Your task to perform on an android device: clear all cookies in the chrome app Image 0: 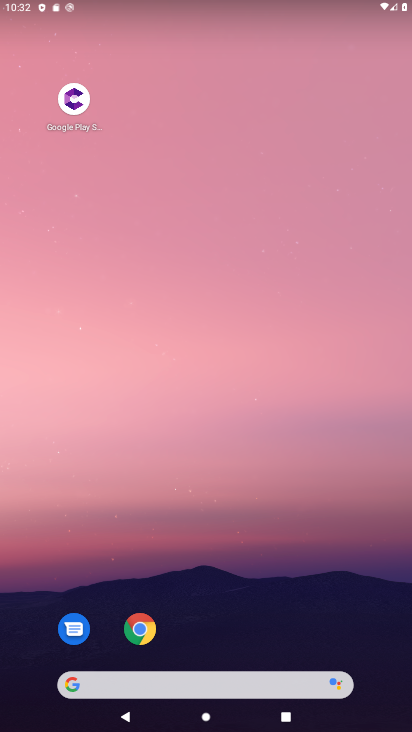
Step 0: click (131, 633)
Your task to perform on an android device: clear all cookies in the chrome app Image 1: 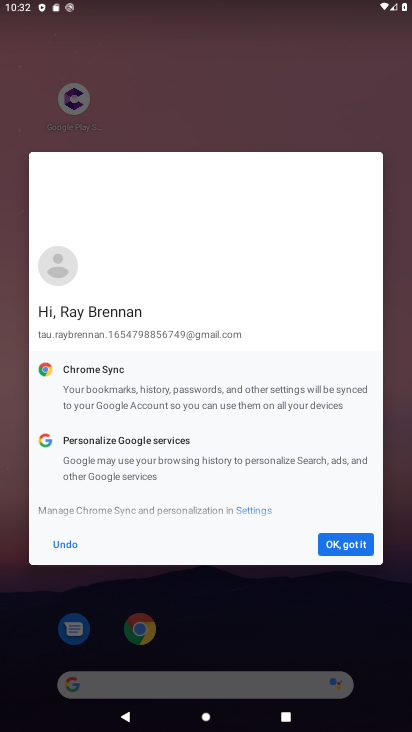
Step 1: click (349, 537)
Your task to perform on an android device: clear all cookies in the chrome app Image 2: 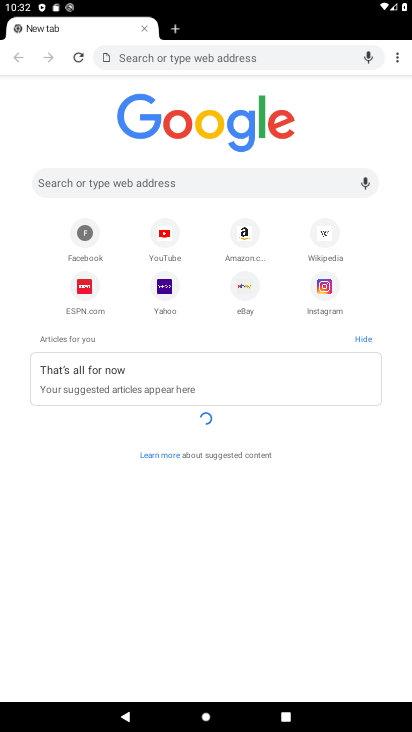
Step 2: click (402, 57)
Your task to perform on an android device: clear all cookies in the chrome app Image 3: 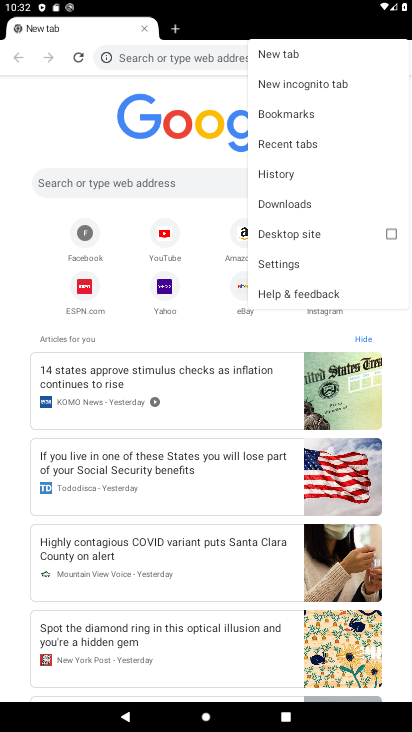
Step 3: click (289, 263)
Your task to perform on an android device: clear all cookies in the chrome app Image 4: 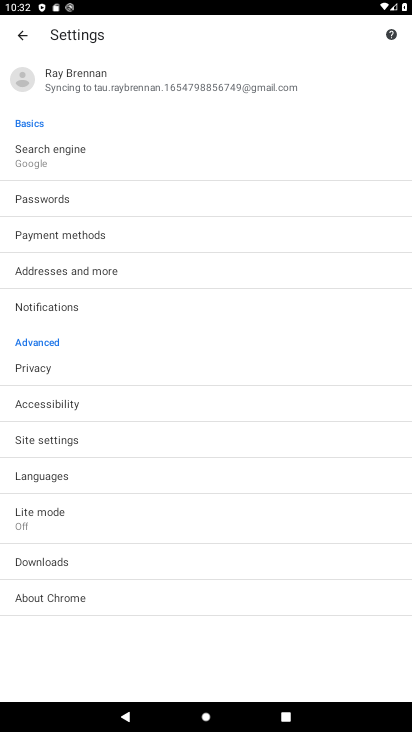
Step 4: click (39, 367)
Your task to perform on an android device: clear all cookies in the chrome app Image 5: 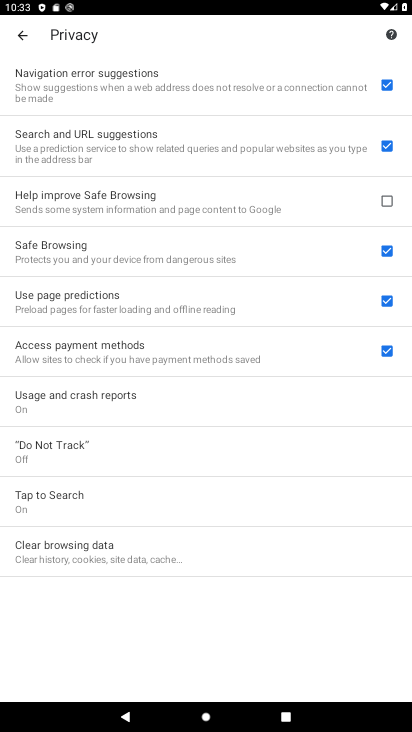
Step 5: click (57, 549)
Your task to perform on an android device: clear all cookies in the chrome app Image 6: 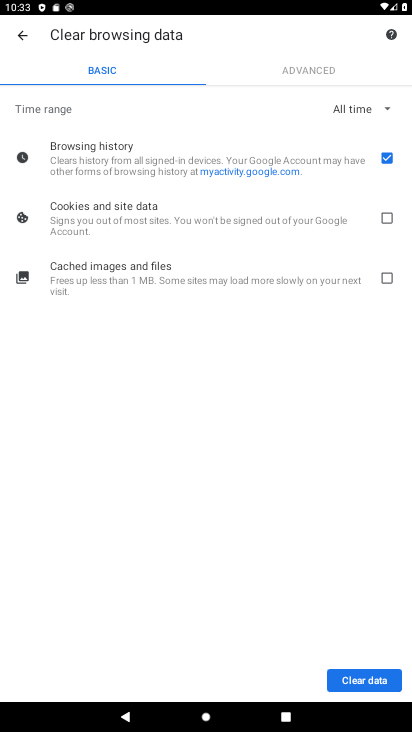
Step 6: click (387, 218)
Your task to perform on an android device: clear all cookies in the chrome app Image 7: 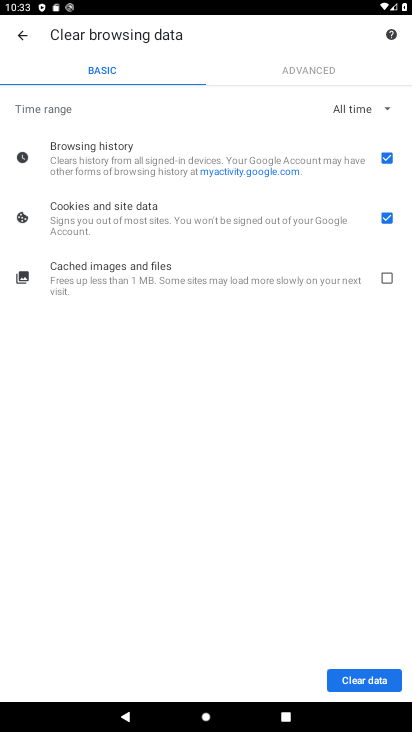
Step 7: click (388, 156)
Your task to perform on an android device: clear all cookies in the chrome app Image 8: 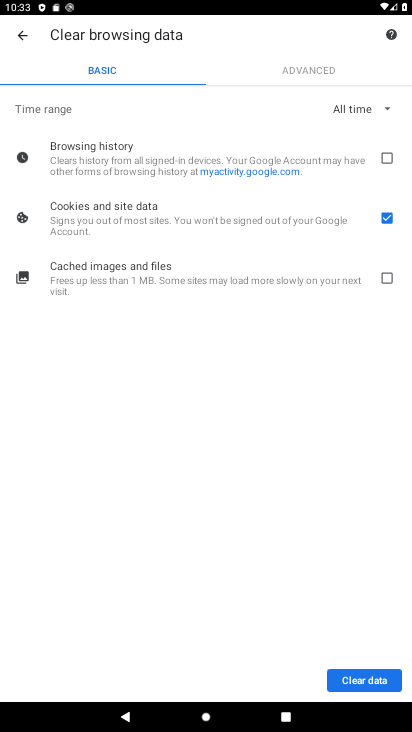
Step 8: click (381, 673)
Your task to perform on an android device: clear all cookies in the chrome app Image 9: 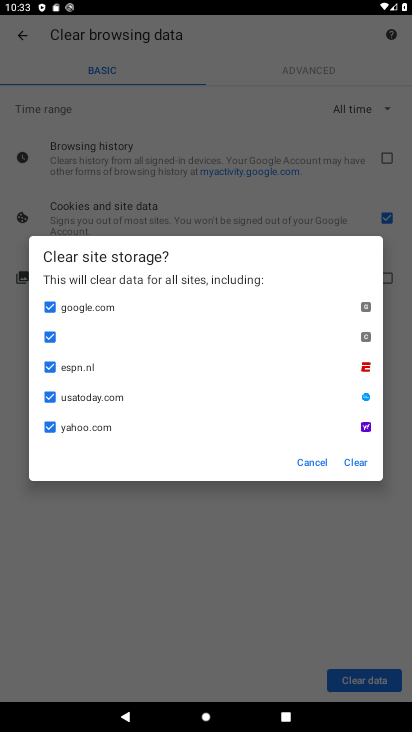
Step 9: click (358, 462)
Your task to perform on an android device: clear all cookies in the chrome app Image 10: 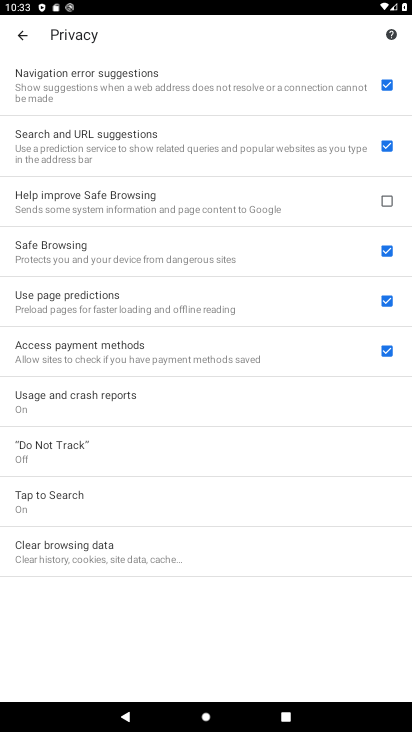
Step 10: task complete